Your task to perform on an android device: toggle priority inbox in the gmail app Image 0: 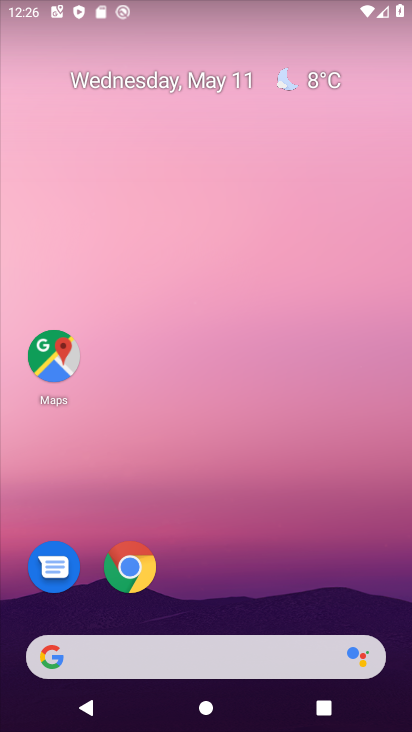
Step 0: drag from (189, 552) to (278, 163)
Your task to perform on an android device: toggle priority inbox in the gmail app Image 1: 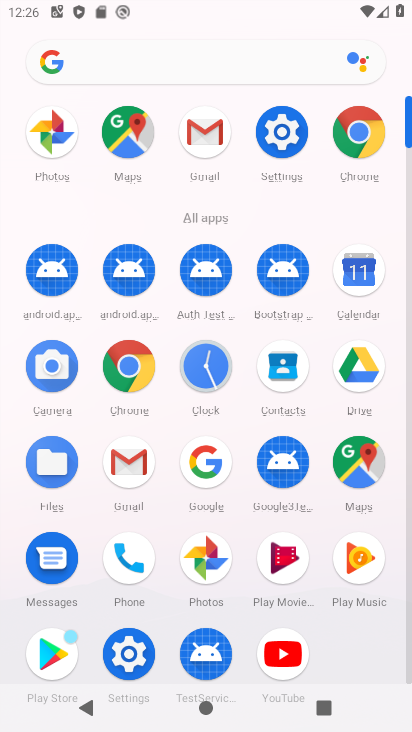
Step 1: click (125, 472)
Your task to perform on an android device: toggle priority inbox in the gmail app Image 2: 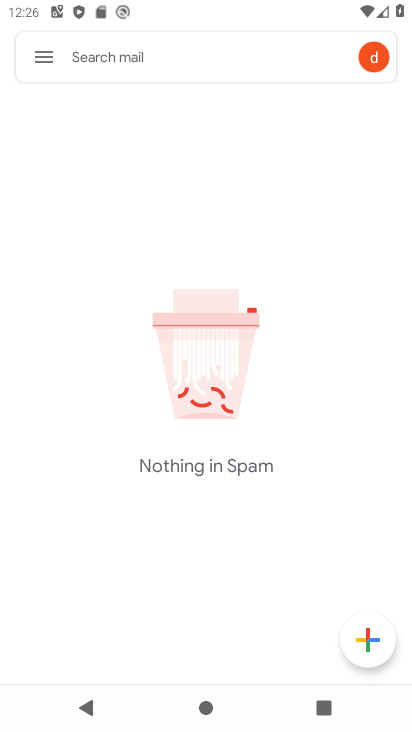
Step 2: click (40, 54)
Your task to perform on an android device: toggle priority inbox in the gmail app Image 3: 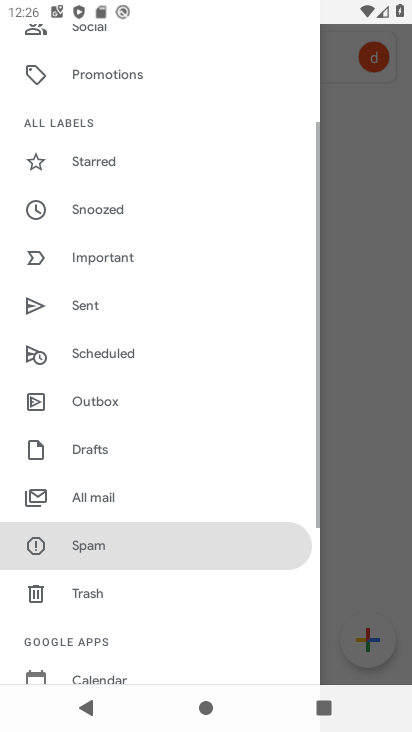
Step 3: drag from (146, 632) to (233, 377)
Your task to perform on an android device: toggle priority inbox in the gmail app Image 4: 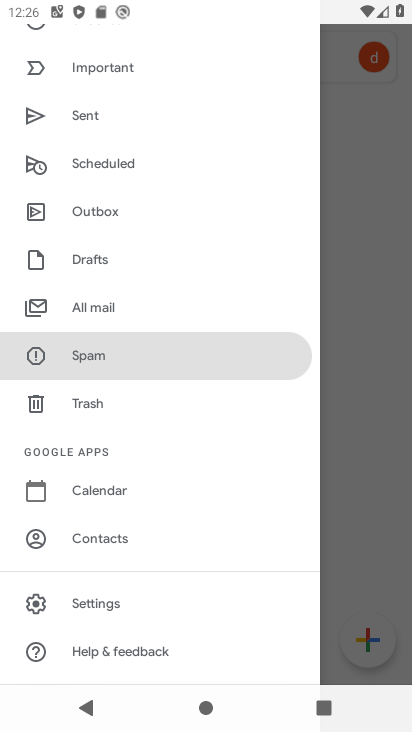
Step 4: click (136, 609)
Your task to perform on an android device: toggle priority inbox in the gmail app Image 5: 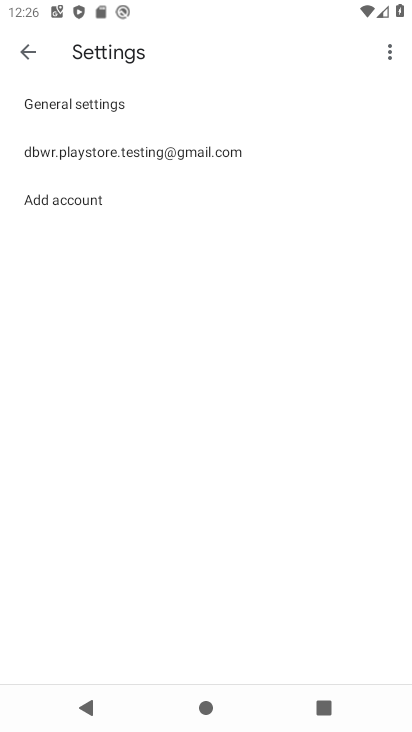
Step 5: click (151, 165)
Your task to perform on an android device: toggle priority inbox in the gmail app Image 6: 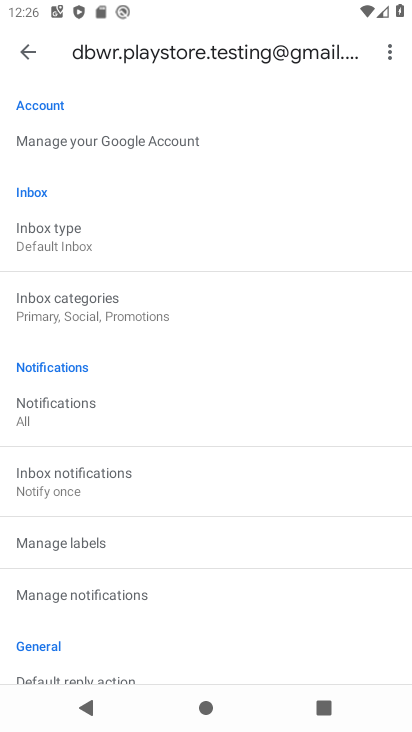
Step 6: click (152, 244)
Your task to perform on an android device: toggle priority inbox in the gmail app Image 7: 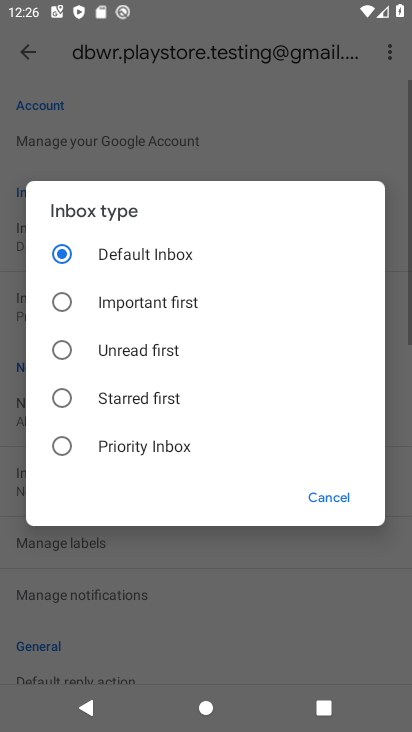
Step 7: click (218, 453)
Your task to perform on an android device: toggle priority inbox in the gmail app Image 8: 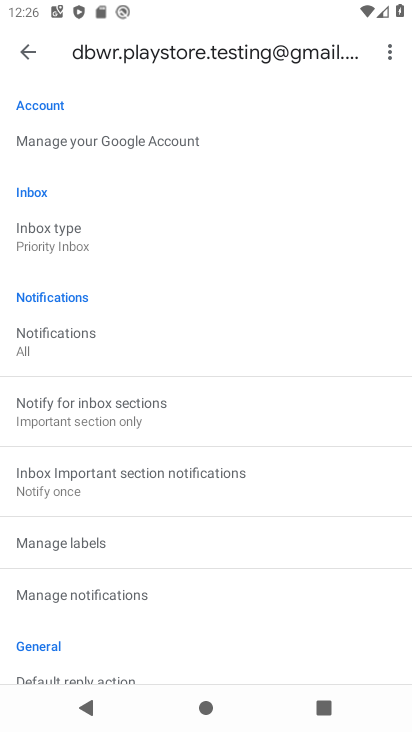
Step 8: task complete